Your task to perform on an android device: turn on the 12-hour format for clock Image 0: 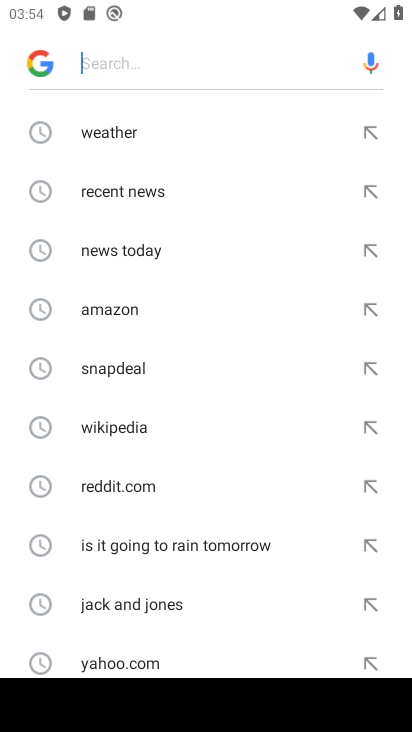
Step 0: press back button
Your task to perform on an android device: turn on the 12-hour format for clock Image 1: 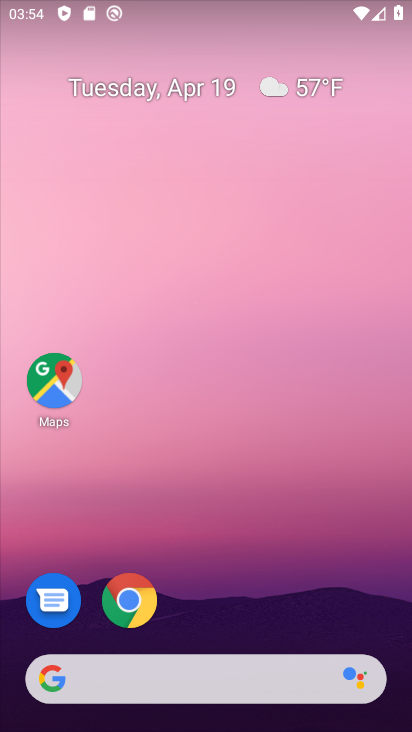
Step 1: drag from (323, 548) to (301, 63)
Your task to perform on an android device: turn on the 12-hour format for clock Image 2: 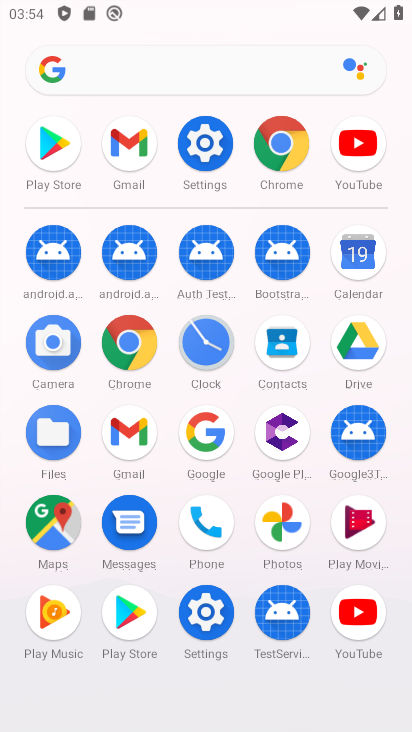
Step 2: click (213, 343)
Your task to perform on an android device: turn on the 12-hour format for clock Image 3: 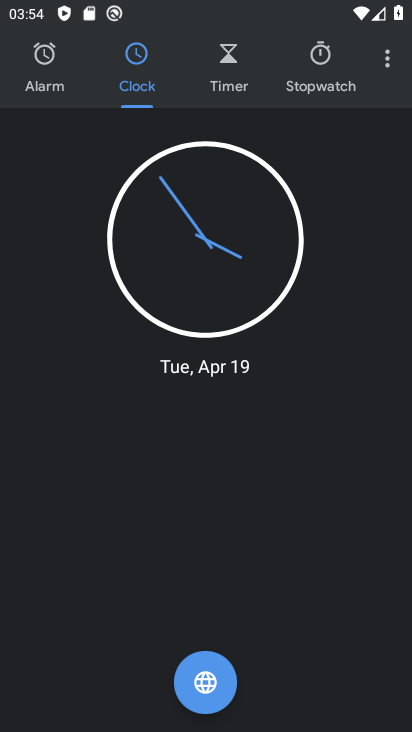
Step 3: click (384, 62)
Your task to perform on an android device: turn on the 12-hour format for clock Image 4: 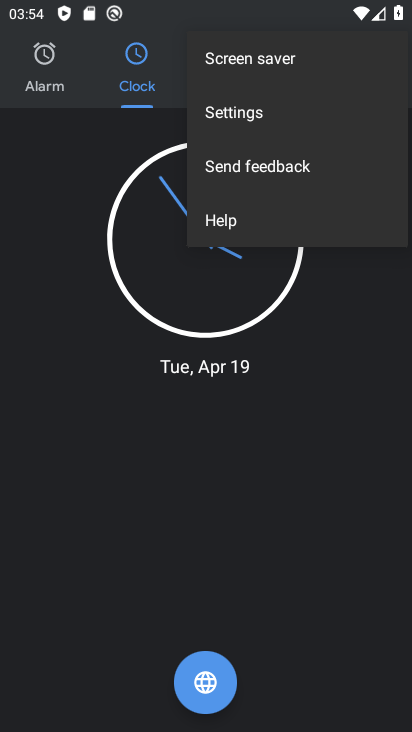
Step 4: click (363, 104)
Your task to perform on an android device: turn on the 12-hour format for clock Image 5: 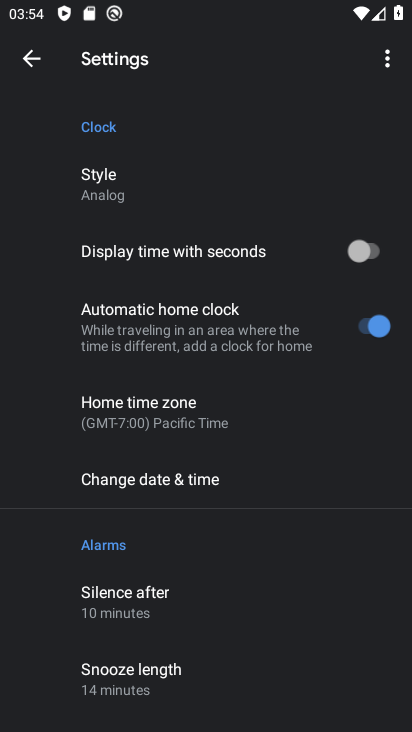
Step 5: click (253, 472)
Your task to perform on an android device: turn on the 12-hour format for clock Image 6: 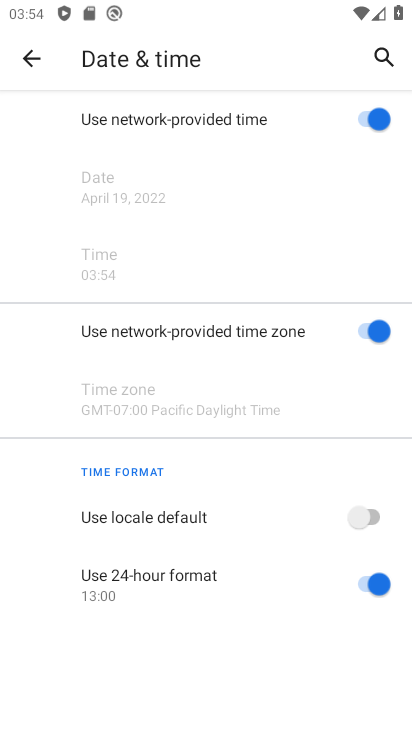
Step 6: click (369, 581)
Your task to perform on an android device: turn on the 12-hour format for clock Image 7: 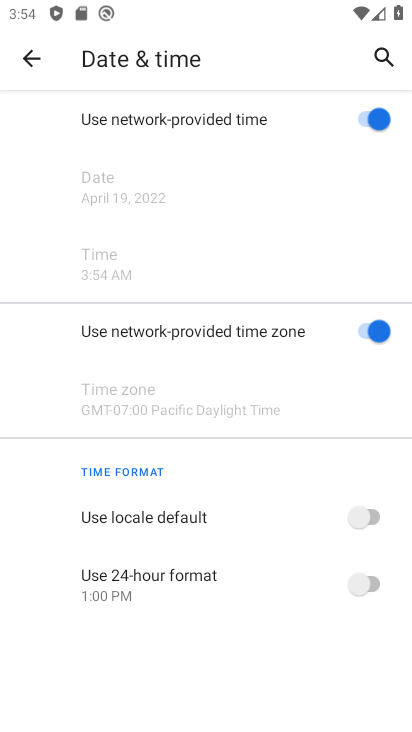
Step 7: task complete